Your task to perform on an android device: turn notification dots on Image 0: 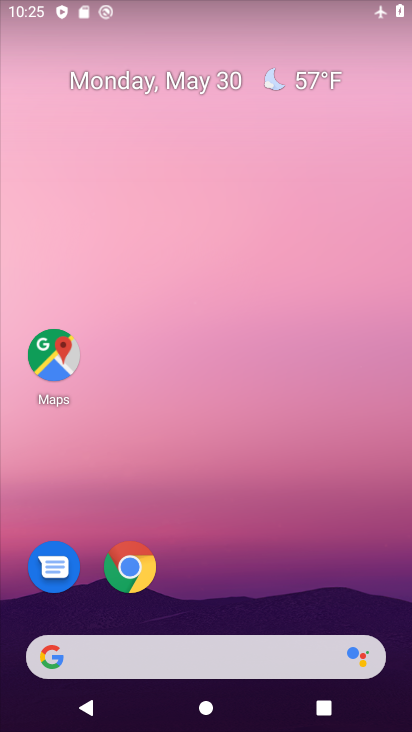
Step 0: drag from (194, 608) to (199, 160)
Your task to perform on an android device: turn notification dots on Image 1: 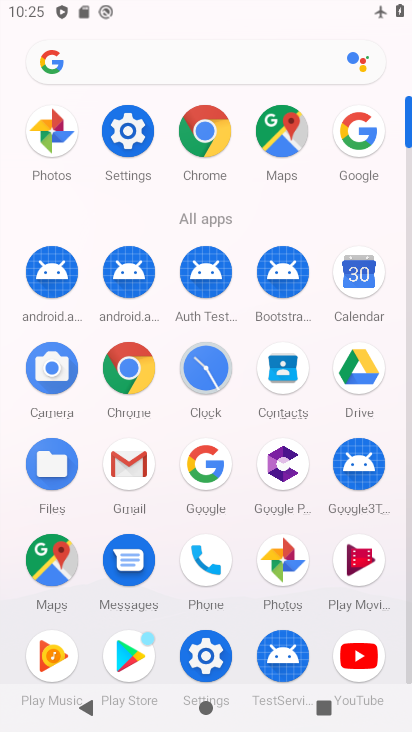
Step 1: click (143, 136)
Your task to perform on an android device: turn notification dots on Image 2: 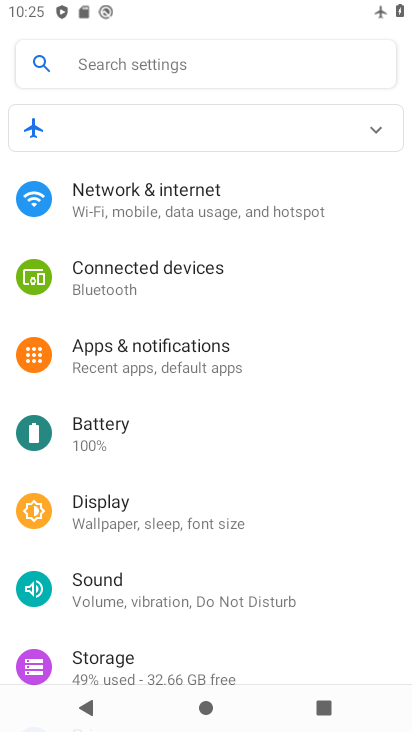
Step 2: click (189, 347)
Your task to perform on an android device: turn notification dots on Image 3: 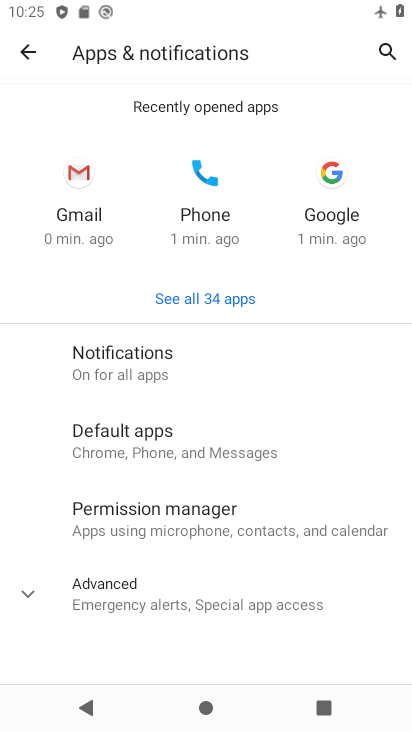
Step 3: click (182, 362)
Your task to perform on an android device: turn notification dots on Image 4: 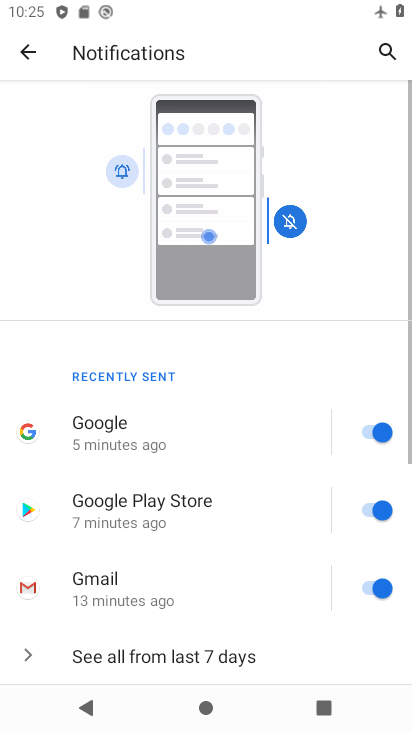
Step 4: drag from (176, 610) to (166, 177)
Your task to perform on an android device: turn notification dots on Image 5: 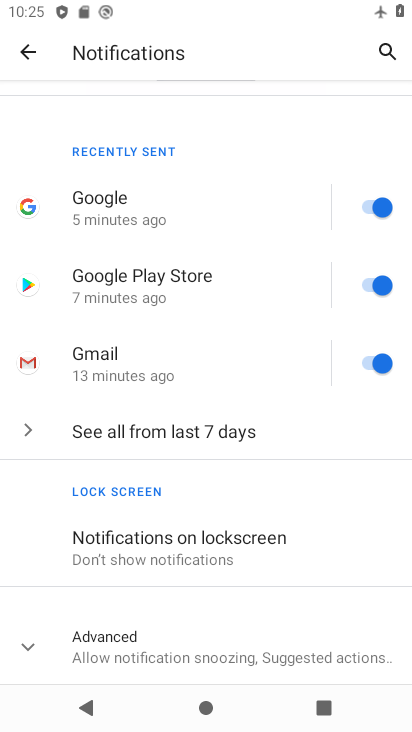
Step 5: click (208, 643)
Your task to perform on an android device: turn notification dots on Image 6: 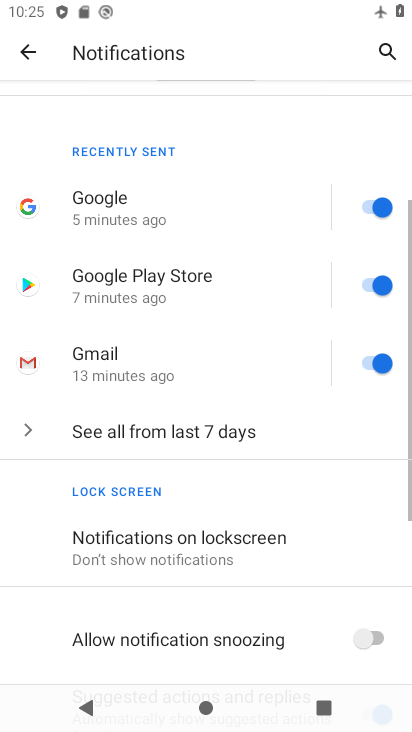
Step 6: task complete